Your task to perform on an android device: allow cookies in the chrome app Image 0: 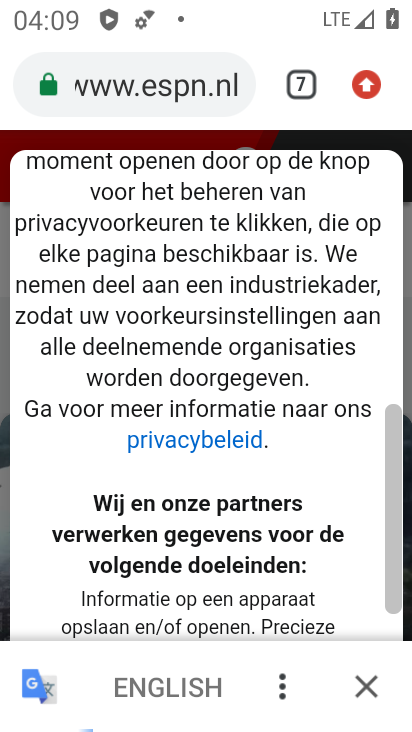
Step 0: drag from (370, 84) to (112, 596)
Your task to perform on an android device: allow cookies in the chrome app Image 1: 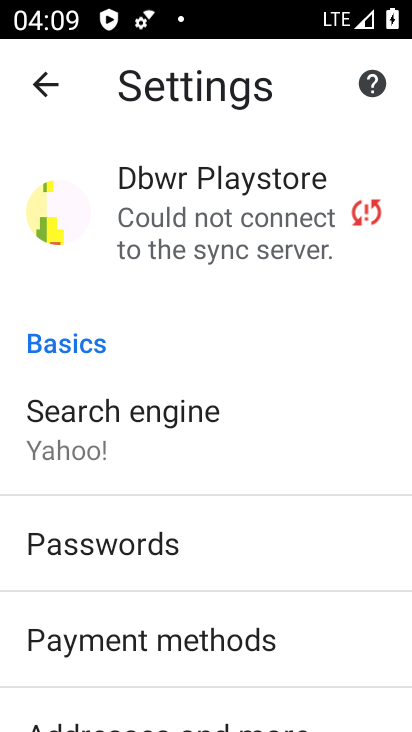
Step 1: click (102, 596)
Your task to perform on an android device: allow cookies in the chrome app Image 2: 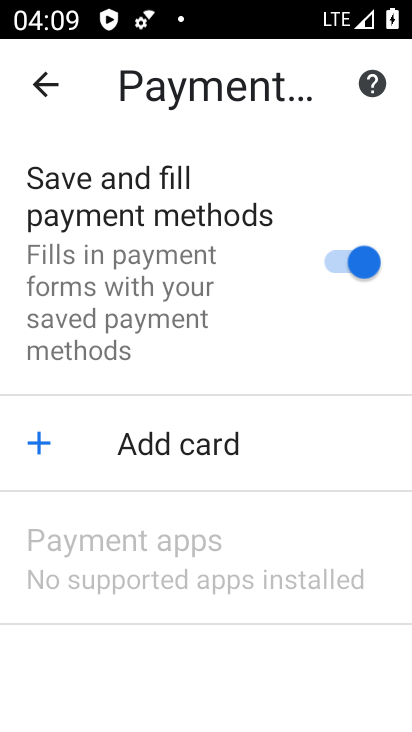
Step 2: click (102, 596)
Your task to perform on an android device: allow cookies in the chrome app Image 3: 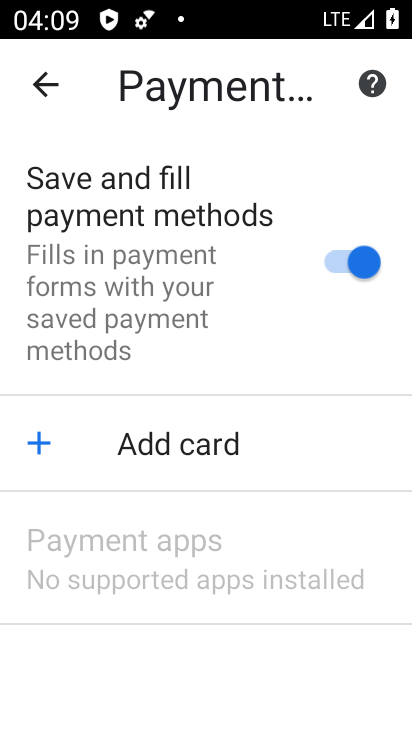
Step 3: click (102, 596)
Your task to perform on an android device: allow cookies in the chrome app Image 4: 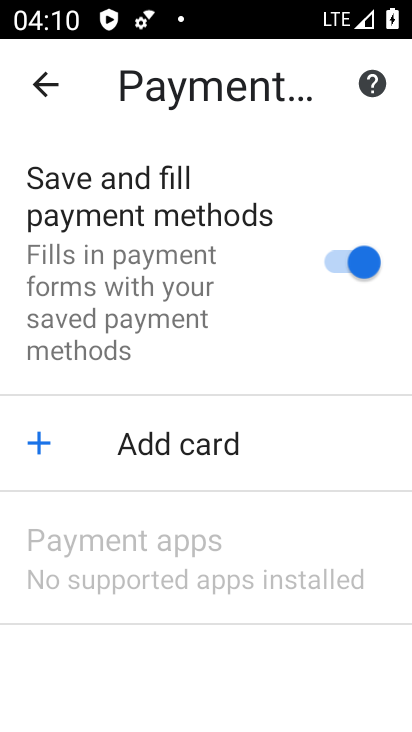
Step 4: click (29, 86)
Your task to perform on an android device: allow cookies in the chrome app Image 5: 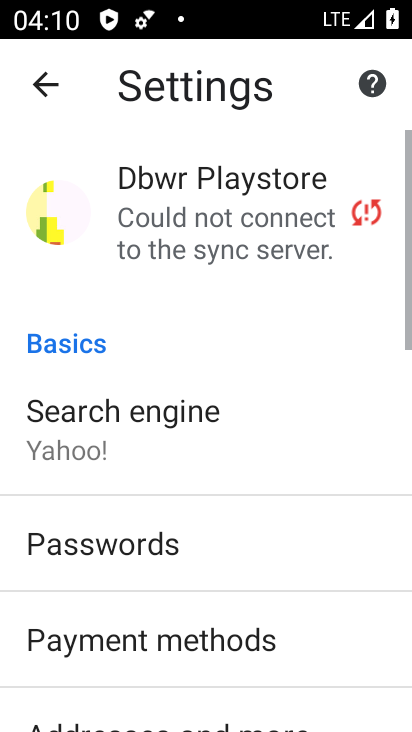
Step 5: drag from (145, 568) to (289, 52)
Your task to perform on an android device: allow cookies in the chrome app Image 6: 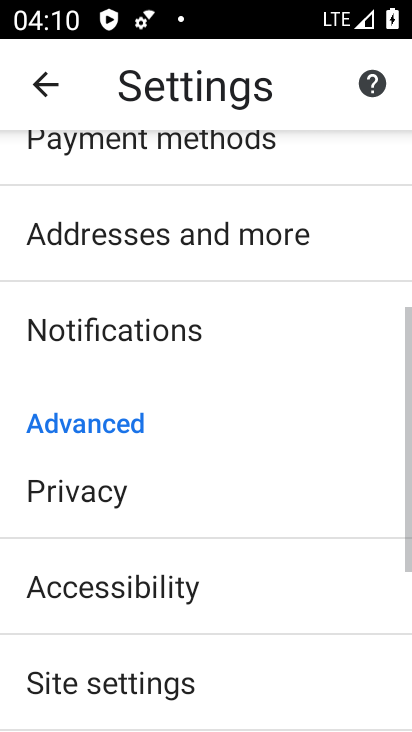
Step 6: drag from (203, 650) to (250, 463)
Your task to perform on an android device: allow cookies in the chrome app Image 7: 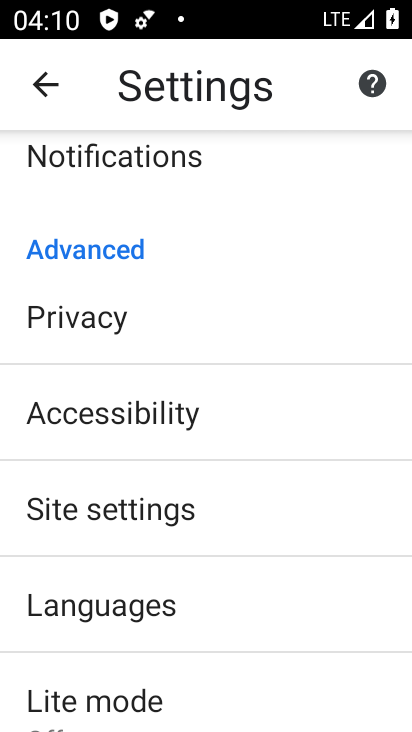
Step 7: click (136, 482)
Your task to perform on an android device: allow cookies in the chrome app Image 8: 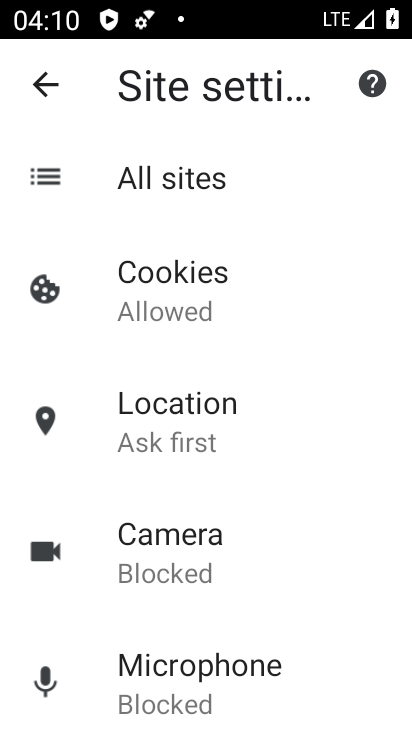
Step 8: click (180, 273)
Your task to perform on an android device: allow cookies in the chrome app Image 9: 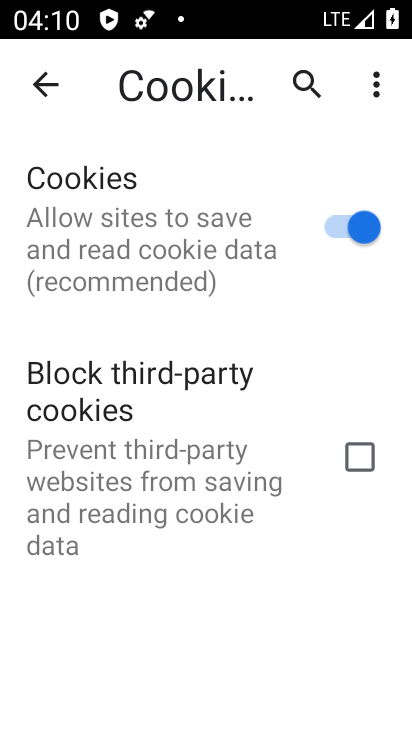
Step 9: task complete